Your task to perform on an android device: What's the weather going to be this weekend? Image 0: 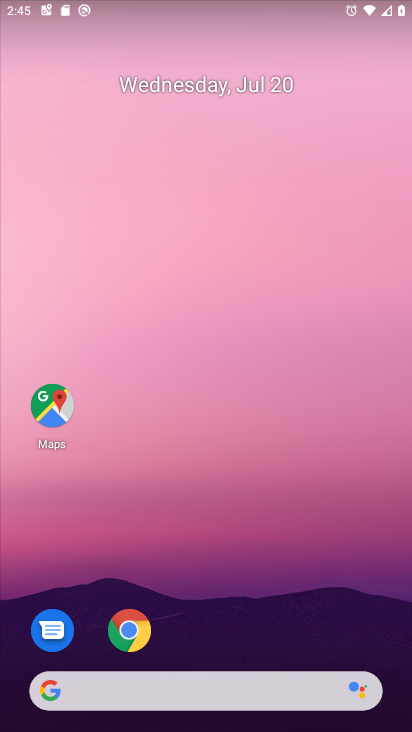
Step 0: drag from (200, 662) to (248, 51)
Your task to perform on an android device: What's the weather going to be this weekend? Image 1: 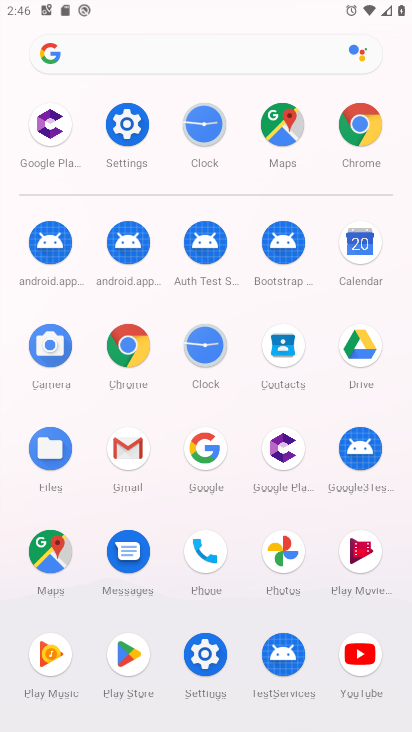
Step 1: click (207, 476)
Your task to perform on an android device: What's the weather going to be this weekend? Image 2: 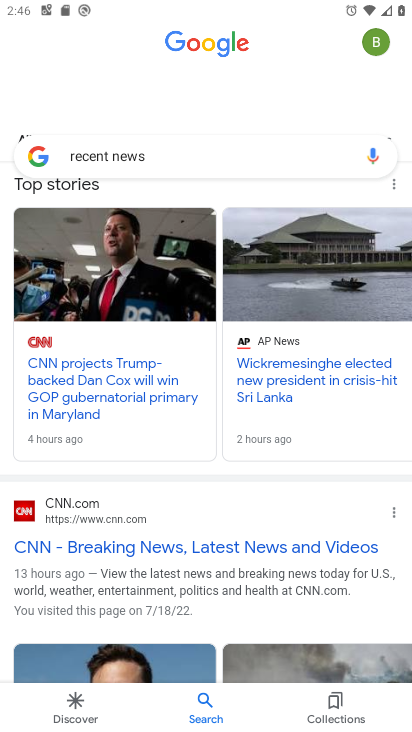
Step 2: click (236, 169)
Your task to perform on an android device: What's the weather going to be this weekend? Image 3: 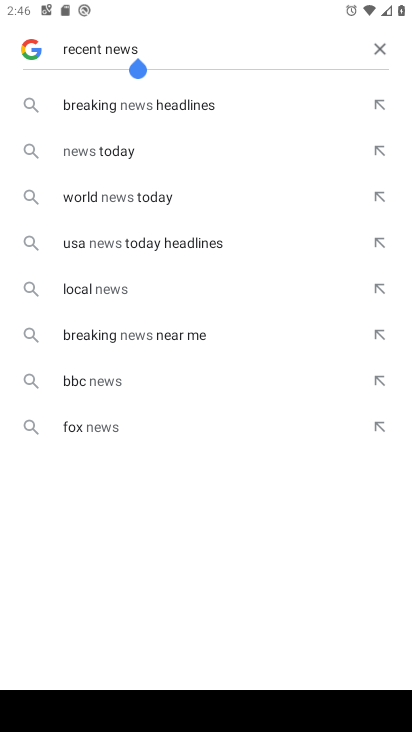
Step 3: click (382, 51)
Your task to perform on an android device: What's the weather going to be this weekend? Image 4: 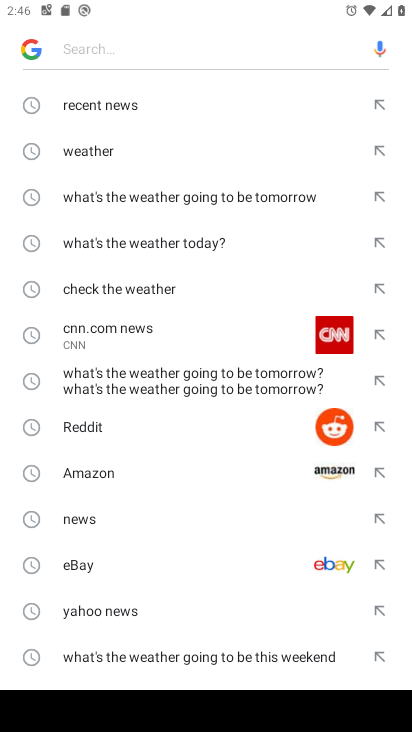
Step 4: click (116, 150)
Your task to perform on an android device: What's the weather going to be this weekend? Image 5: 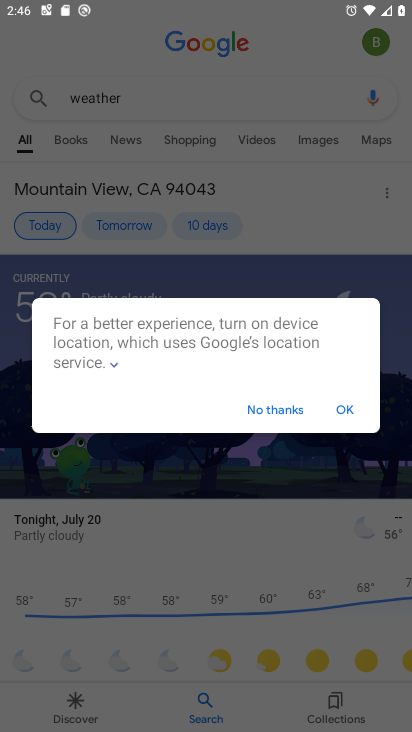
Step 5: click (342, 403)
Your task to perform on an android device: What's the weather going to be this weekend? Image 6: 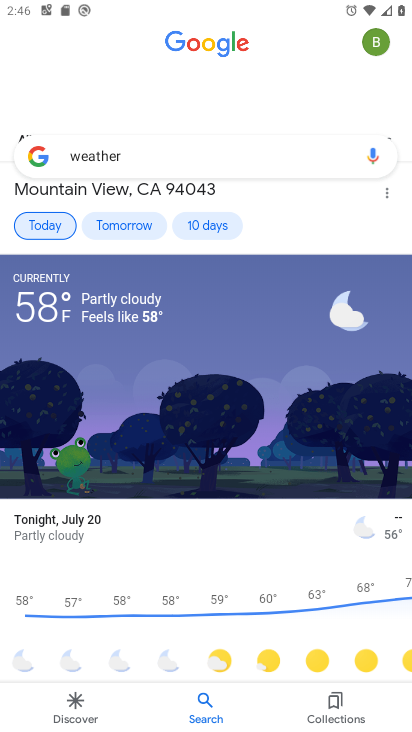
Step 6: click (209, 229)
Your task to perform on an android device: What's the weather going to be this weekend? Image 7: 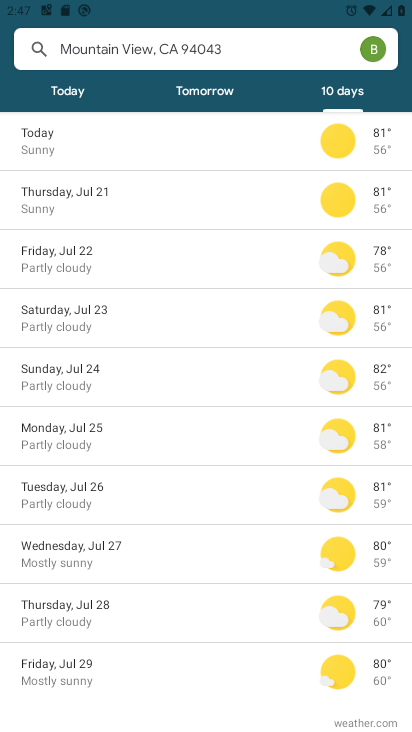
Step 7: task complete